Your task to perform on an android device: set an alarm Image 0: 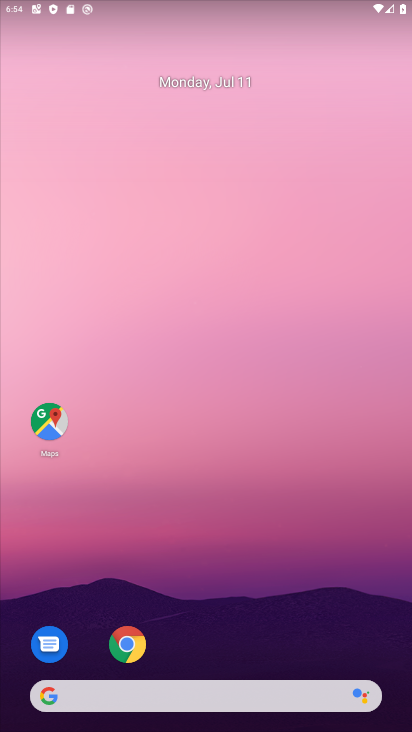
Step 0: press home button
Your task to perform on an android device: set an alarm Image 1: 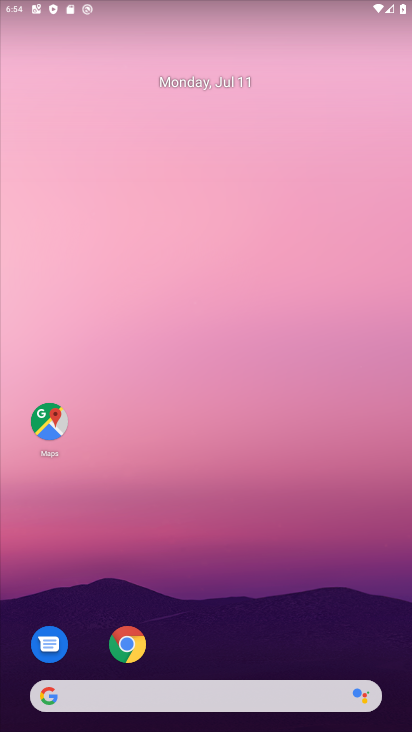
Step 1: drag from (234, 700) to (236, 25)
Your task to perform on an android device: set an alarm Image 2: 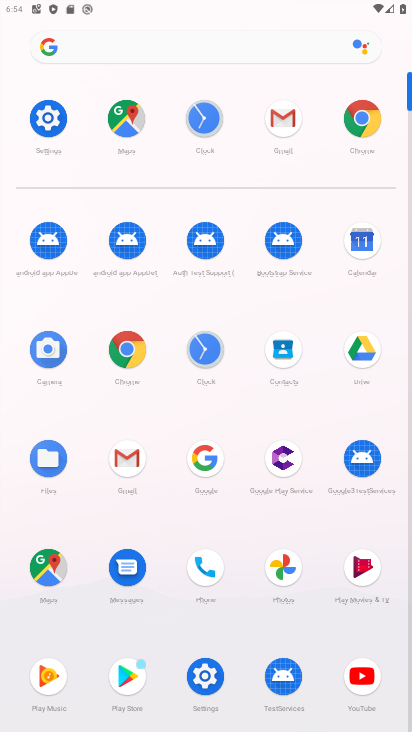
Step 2: click (211, 356)
Your task to perform on an android device: set an alarm Image 3: 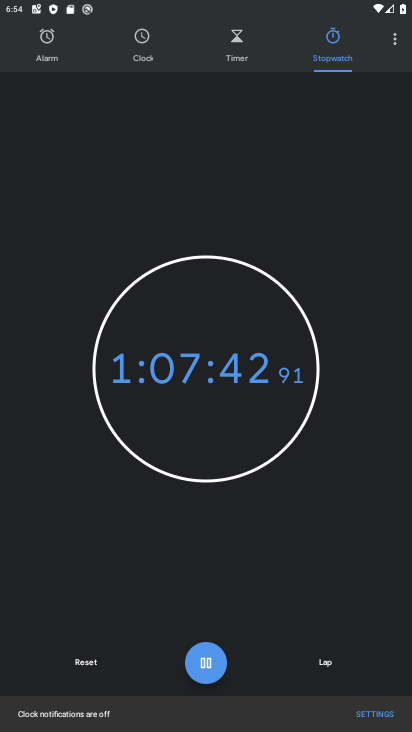
Step 3: click (45, 40)
Your task to perform on an android device: set an alarm Image 4: 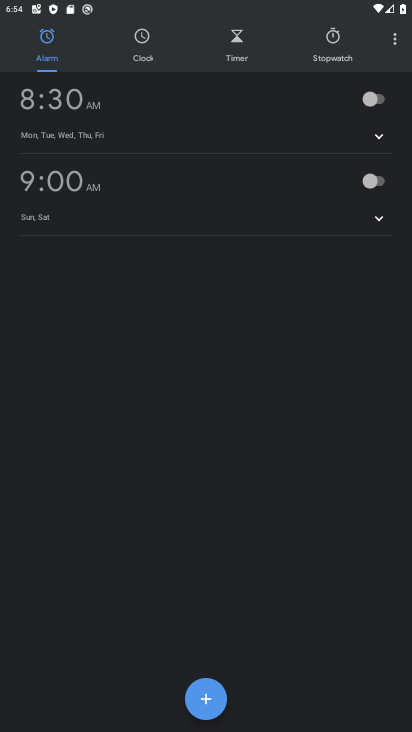
Step 4: click (381, 104)
Your task to perform on an android device: set an alarm Image 5: 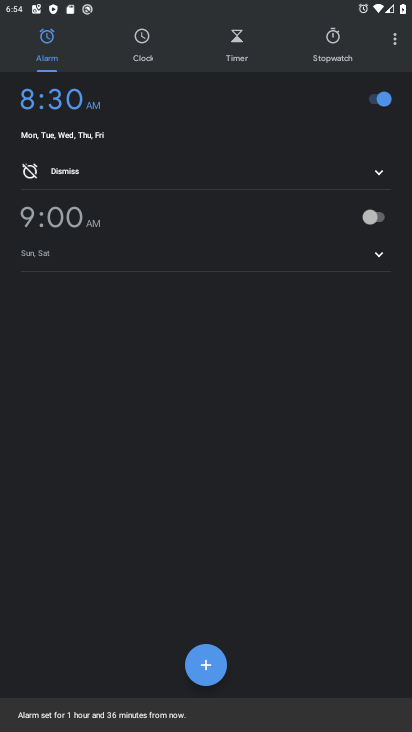
Step 5: task complete